Your task to perform on an android device: Clear the cart on bestbuy. Add macbook pro 13 inch to the cart on bestbuy, then select checkout. Image 0: 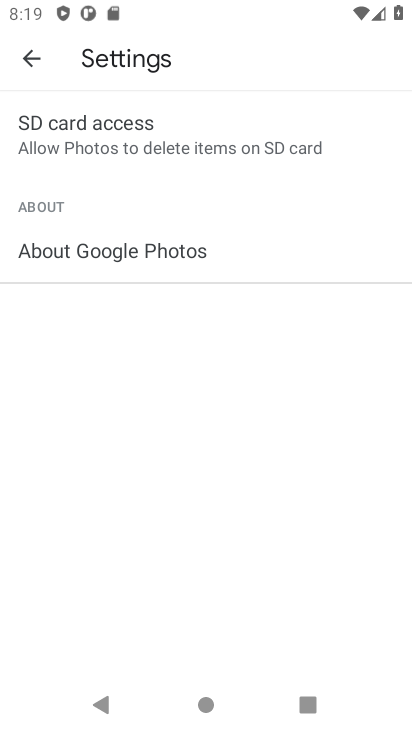
Step 0: press home button
Your task to perform on an android device: Clear the cart on bestbuy. Add macbook pro 13 inch to the cart on bestbuy, then select checkout. Image 1: 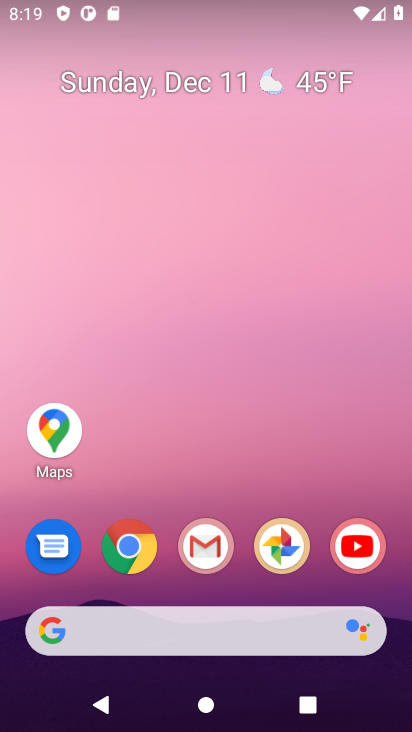
Step 1: click (115, 551)
Your task to perform on an android device: Clear the cart on bestbuy. Add macbook pro 13 inch to the cart on bestbuy, then select checkout. Image 2: 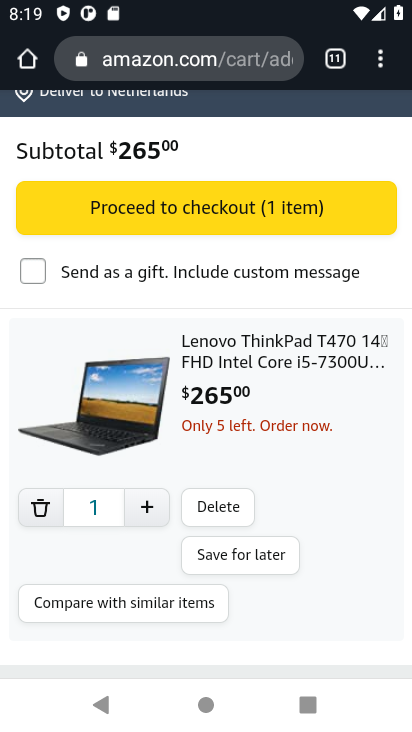
Step 2: click (187, 57)
Your task to perform on an android device: Clear the cart on bestbuy. Add macbook pro 13 inch to the cart on bestbuy, then select checkout. Image 3: 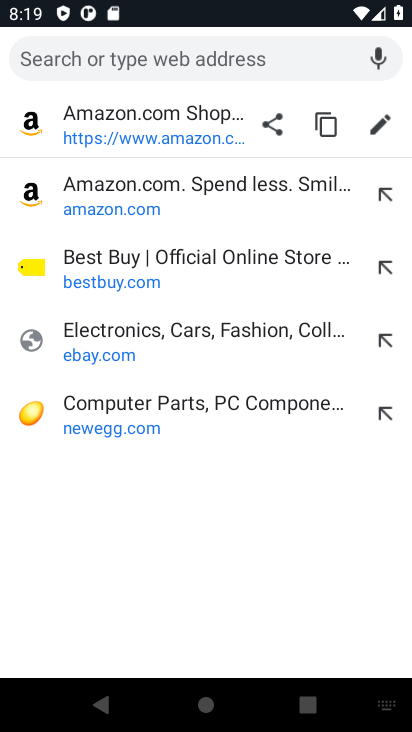
Step 3: click (100, 281)
Your task to perform on an android device: Clear the cart on bestbuy. Add macbook pro 13 inch to the cart on bestbuy, then select checkout. Image 4: 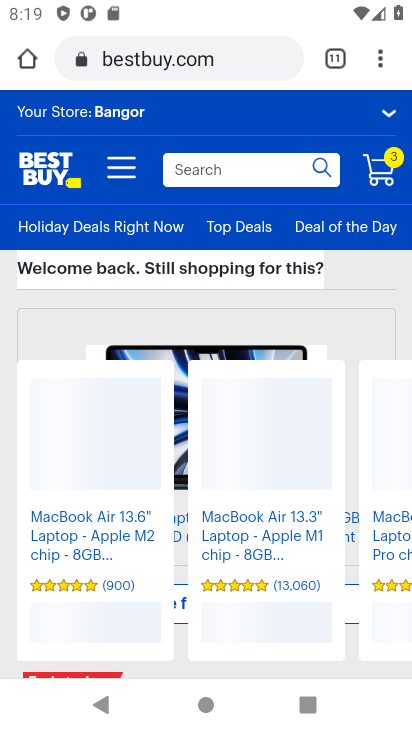
Step 4: click (386, 173)
Your task to perform on an android device: Clear the cart on bestbuy. Add macbook pro 13 inch to the cart on bestbuy, then select checkout. Image 5: 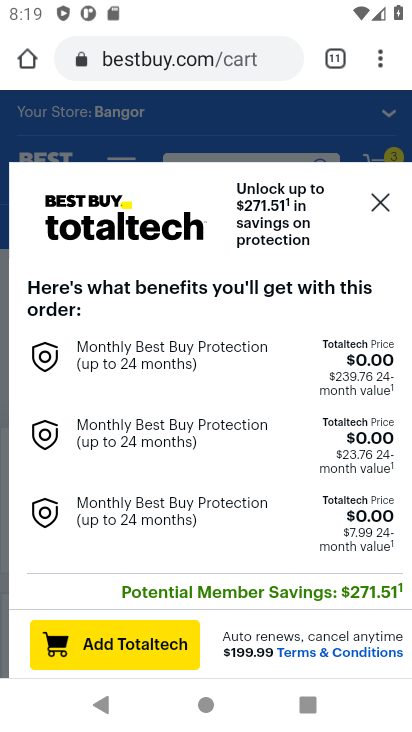
Step 5: drag from (212, 390) to (212, 233)
Your task to perform on an android device: Clear the cart on bestbuy. Add macbook pro 13 inch to the cart on bestbuy, then select checkout. Image 6: 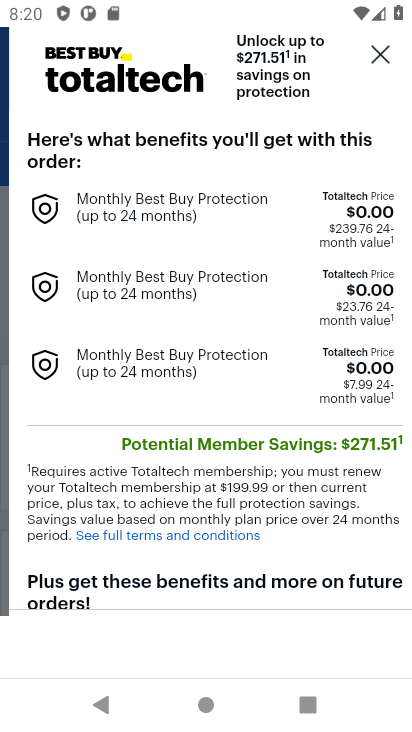
Step 6: click (378, 55)
Your task to perform on an android device: Clear the cart on bestbuy. Add macbook pro 13 inch to the cart on bestbuy, then select checkout. Image 7: 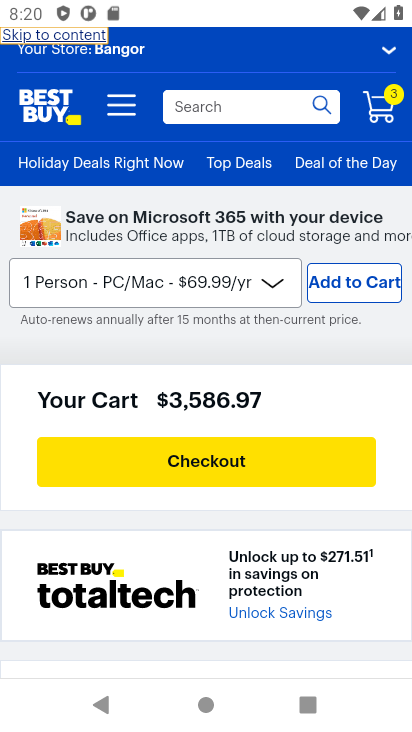
Step 7: drag from (156, 413) to (186, 191)
Your task to perform on an android device: Clear the cart on bestbuy. Add macbook pro 13 inch to the cart on bestbuy, then select checkout. Image 8: 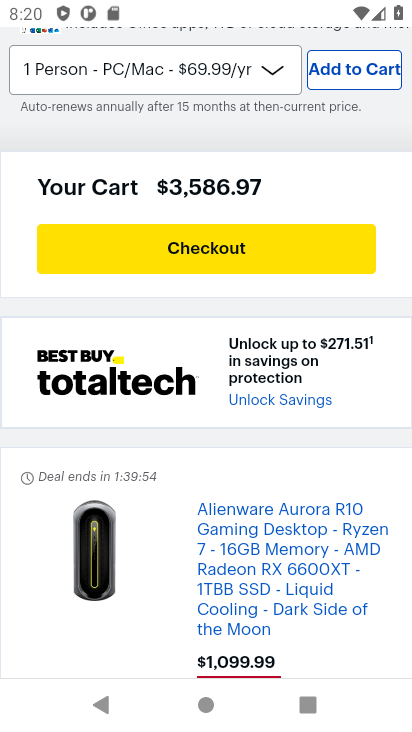
Step 8: drag from (182, 514) to (184, 201)
Your task to perform on an android device: Clear the cart on bestbuy. Add macbook pro 13 inch to the cart on bestbuy, then select checkout. Image 9: 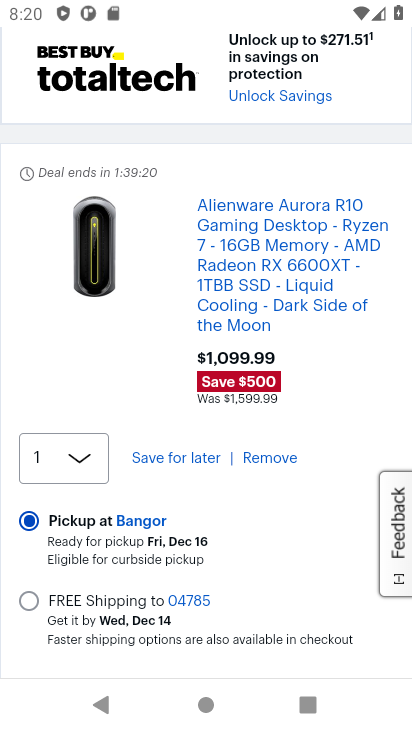
Step 9: click (261, 464)
Your task to perform on an android device: Clear the cart on bestbuy. Add macbook pro 13 inch to the cart on bestbuy, then select checkout. Image 10: 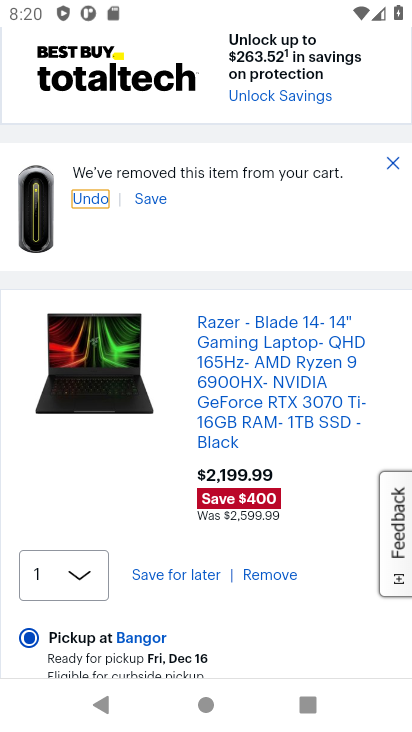
Step 10: click (269, 575)
Your task to perform on an android device: Clear the cart on bestbuy. Add macbook pro 13 inch to the cart on bestbuy, then select checkout. Image 11: 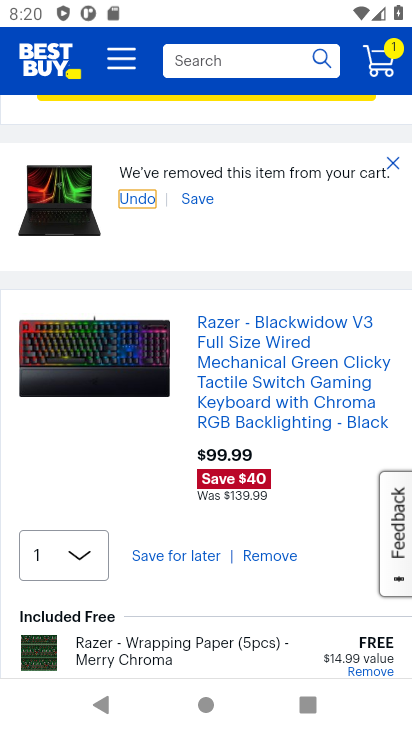
Step 11: click (271, 554)
Your task to perform on an android device: Clear the cart on bestbuy. Add macbook pro 13 inch to the cart on bestbuy, then select checkout. Image 12: 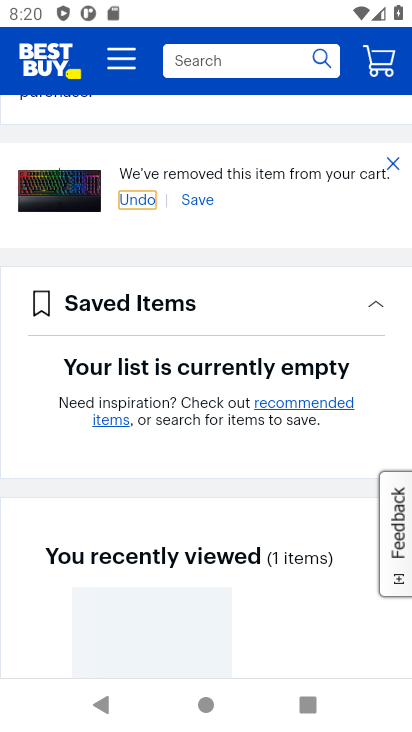
Step 12: drag from (215, 495) to (215, 624)
Your task to perform on an android device: Clear the cart on bestbuy. Add macbook pro 13 inch to the cart on bestbuy, then select checkout. Image 13: 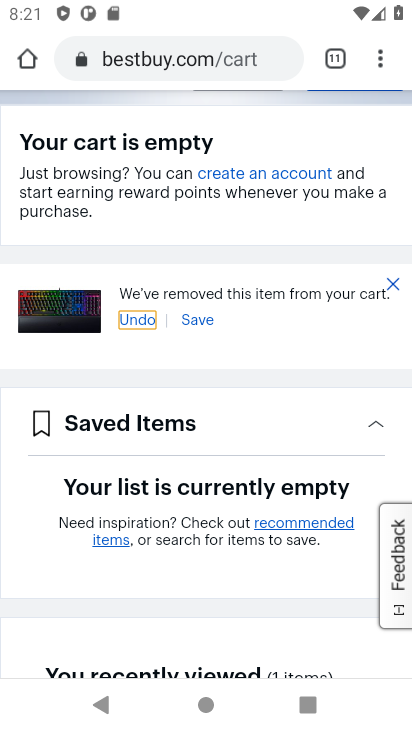
Step 13: drag from (261, 255) to (274, 430)
Your task to perform on an android device: Clear the cart on bestbuy. Add macbook pro 13 inch to the cart on bestbuy, then select checkout. Image 14: 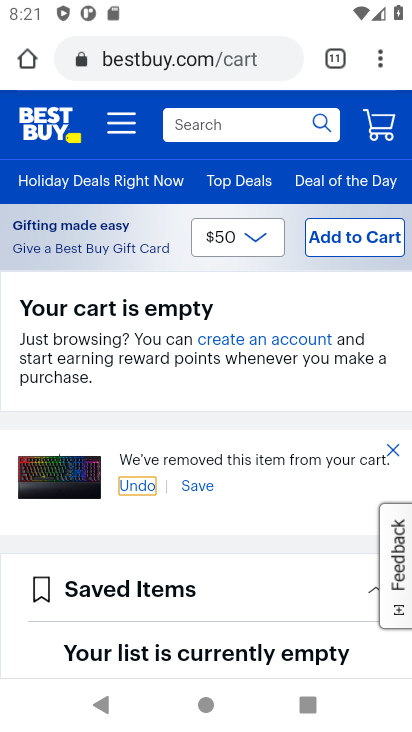
Step 14: click (197, 132)
Your task to perform on an android device: Clear the cart on bestbuy. Add macbook pro 13 inch to the cart on bestbuy, then select checkout. Image 15: 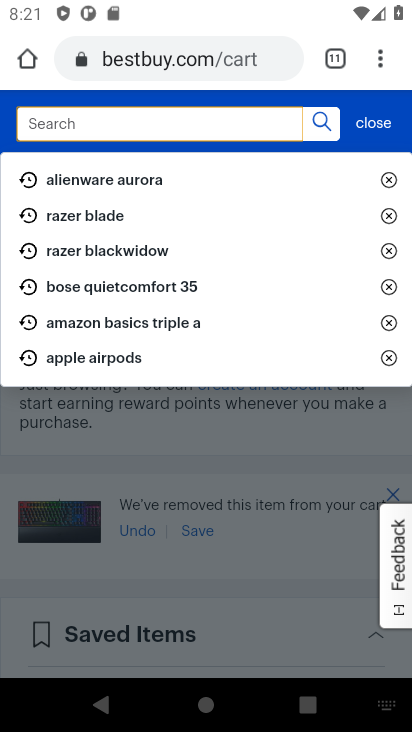
Step 15: type "macbook pro 13 inch"
Your task to perform on an android device: Clear the cart on bestbuy. Add macbook pro 13 inch to the cart on bestbuy, then select checkout. Image 16: 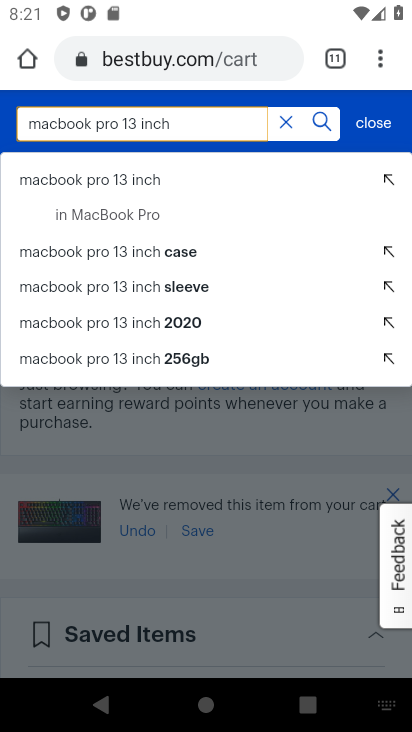
Step 16: click (110, 183)
Your task to perform on an android device: Clear the cart on bestbuy. Add macbook pro 13 inch to the cart on bestbuy, then select checkout. Image 17: 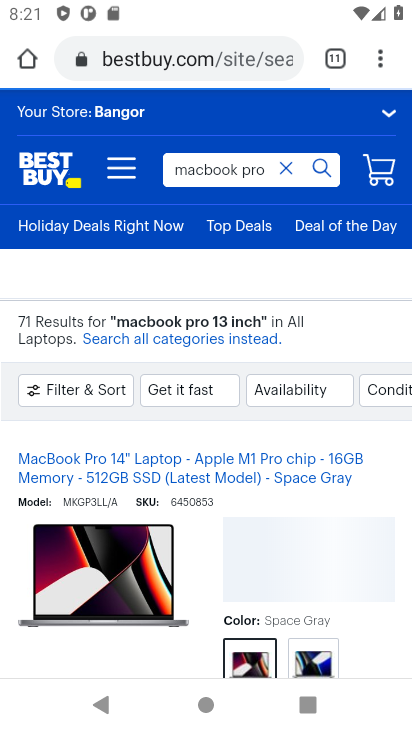
Step 17: drag from (200, 499) to (200, 331)
Your task to perform on an android device: Clear the cart on bestbuy. Add macbook pro 13 inch to the cart on bestbuy, then select checkout. Image 18: 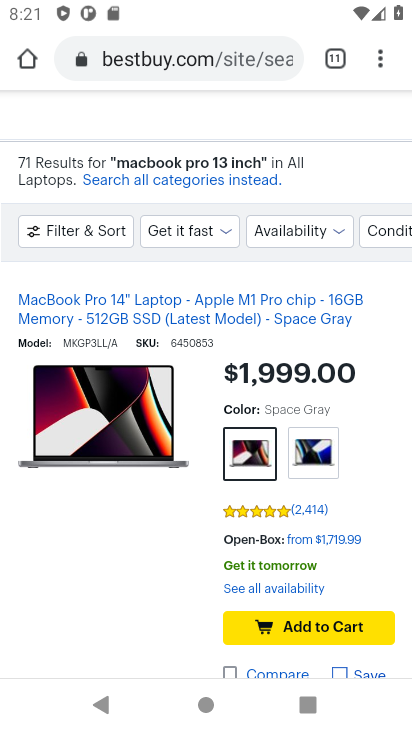
Step 18: drag from (163, 542) to (167, 179)
Your task to perform on an android device: Clear the cart on bestbuy. Add macbook pro 13 inch to the cart on bestbuy, then select checkout. Image 19: 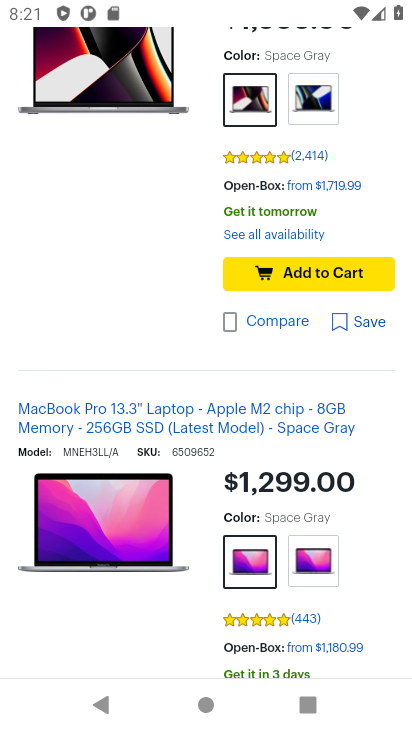
Step 19: drag from (168, 461) to (160, 279)
Your task to perform on an android device: Clear the cart on bestbuy. Add macbook pro 13 inch to the cart on bestbuy, then select checkout. Image 20: 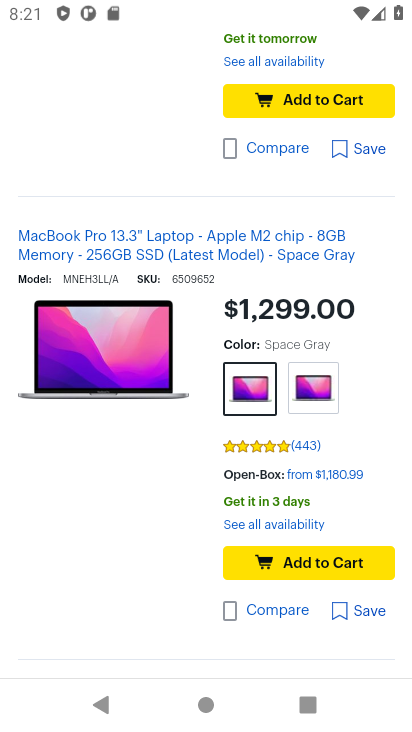
Step 20: click (294, 565)
Your task to perform on an android device: Clear the cart on bestbuy. Add macbook pro 13 inch to the cart on bestbuy, then select checkout. Image 21: 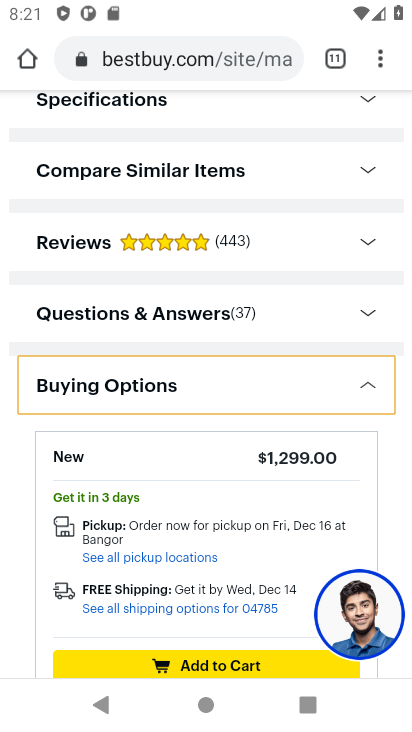
Step 21: drag from (198, 480) to (198, 98)
Your task to perform on an android device: Clear the cart on bestbuy. Add macbook pro 13 inch to the cart on bestbuy, then select checkout. Image 22: 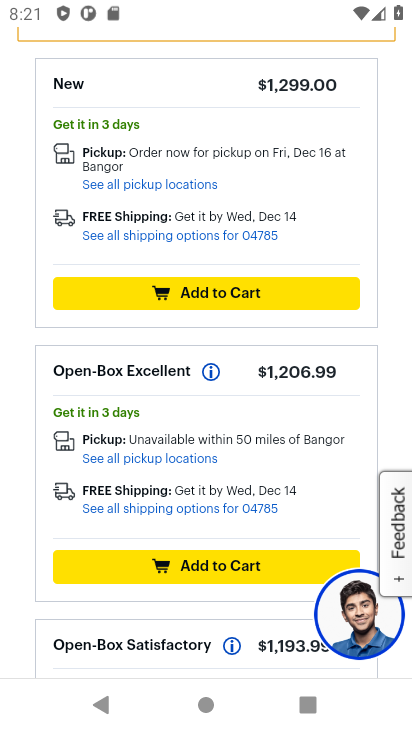
Step 22: drag from (200, 293) to (193, 545)
Your task to perform on an android device: Clear the cart on bestbuy. Add macbook pro 13 inch to the cart on bestbuy, then select checkout. Image 23: 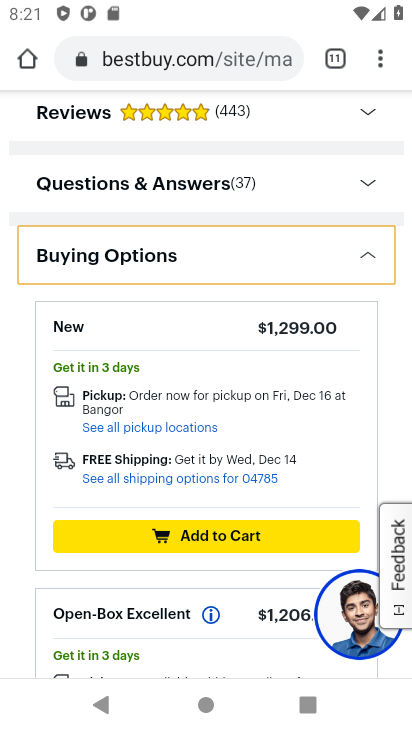
Step 23: drag from (190, 298) to (173, 591)
Your task to perform on an android device: Clear the cart on bestbuy. Add macbook pro 13 inch to the cart on bestbuy, then select checkout. Image 24: 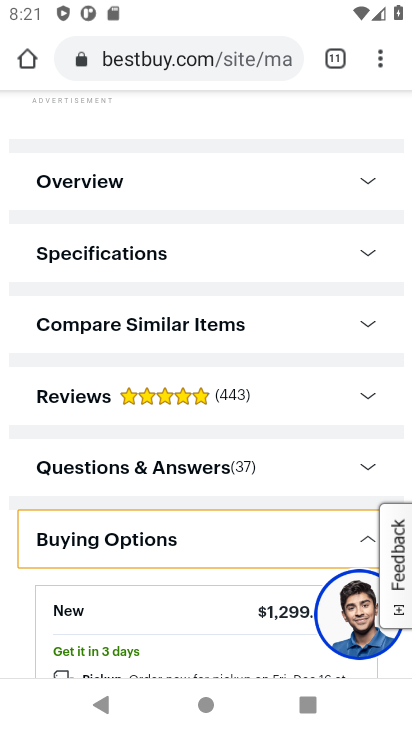
Step 24: drag from (184, 317) to (143, 659)
Your task to perform on an android device: Clear the cart on bestbuy. Add macbook pro 13 inch to the cart on bestbuy, then select checkout. Image 25: 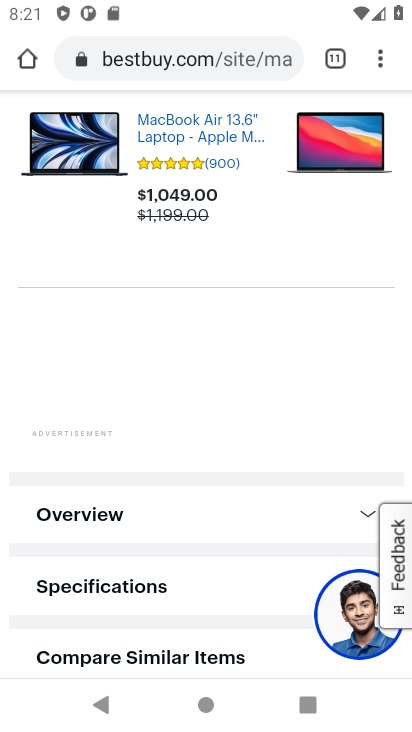
Step 25: drag from (158, 319) to (128, 670)
Your task to perform on an android device: Clear the cart on bestbuy. Add macbook pro 13 inch to the cart on bestbuy, then select checkout. Image 26: 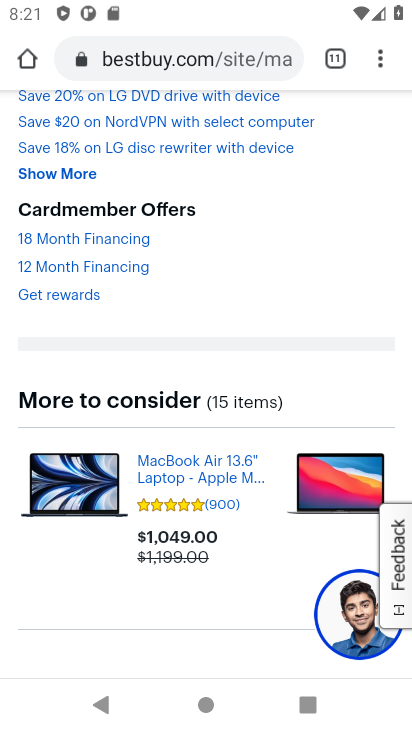
Step 26: drag from (174, 303) to (131, 673)
Your task to perform on an android device: Clear the cart on bestbuy. Add macbook pro 13 inch to the cart on bestbuy, then select checkout. Image 27: 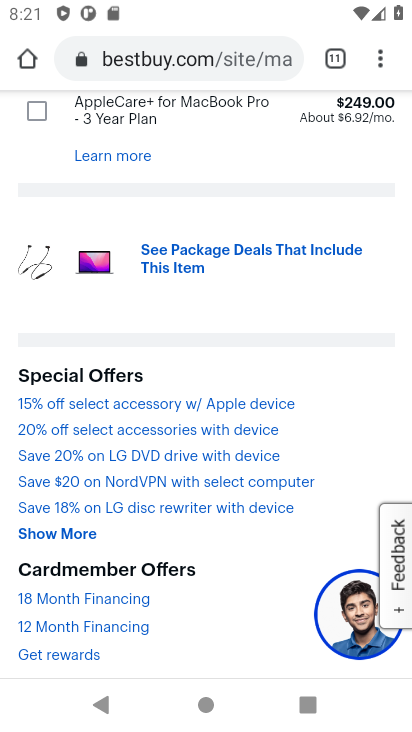
Step 27: drag from (130, 275) to (119, 629)
Your task to perform on an android device: Clear the cart on bestbuy. Add macbook pro 13 inch to the cart on bestbuy, then select checkout. Image 28: 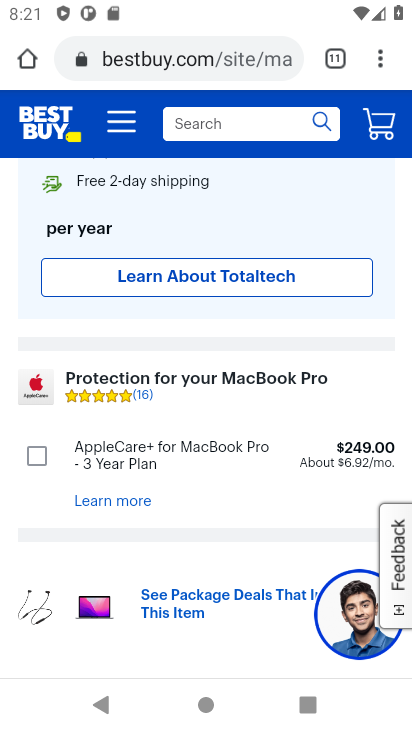
Step 28: drag from (174, 367) to (148, 658)
Your task to perform on an android device: Clear the cart on bestbuy. Add macbook pro 13 inch to the cart on bestbuy, then select checkout. Image 29: 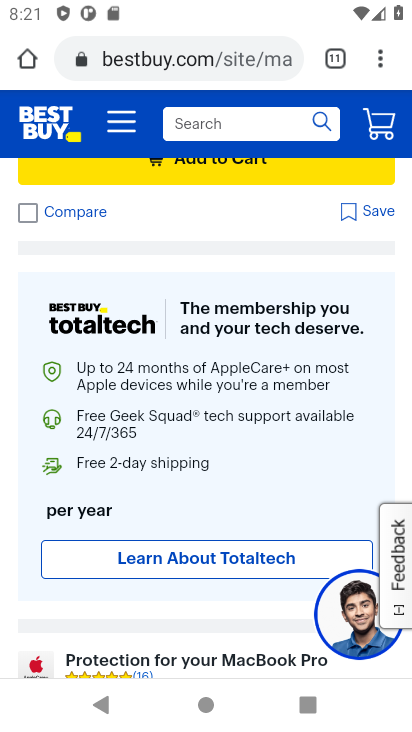
Step 29: drag from (178, 319) to (133, 688)
Your task to perform on an android device: Clear the cart on bestbuy. Add macbook pro 13 inch to the cart on bestbuy, then select checkout. Image 30: 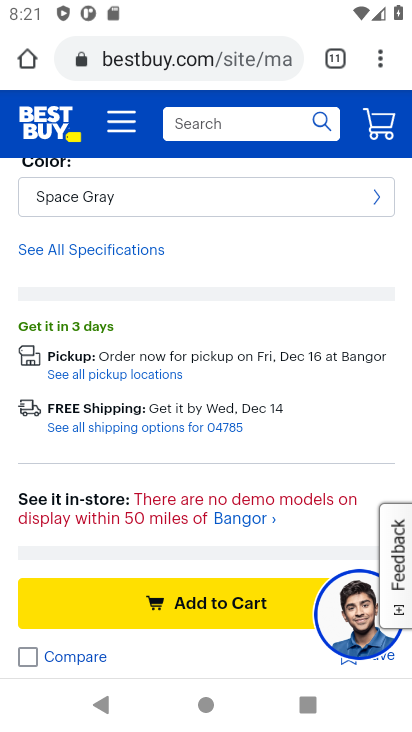
Step 30: click (163, 610)
Your task to perform on an android device: Clear the cart on bestbuy. Add macbook pro 13 inch to the cart on bestbuy, then select checkout. Image 31: 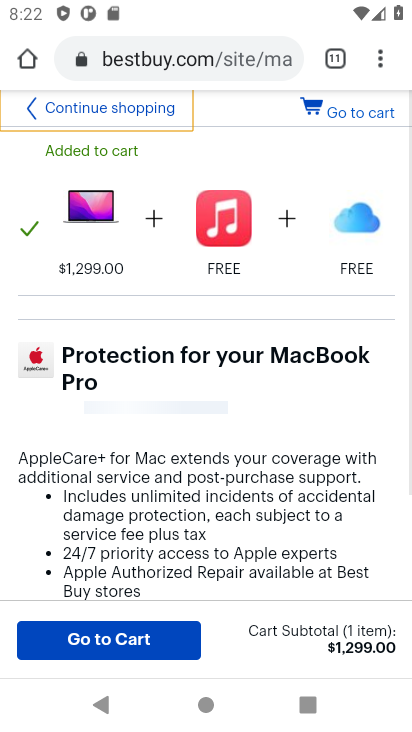
Step 31: click (349, 117)
Your task to perform on an android device: Clear the cart on bestbuy. Add macbook pro 13 inch to the cart on bestbuy, then select checkout. Image 32: 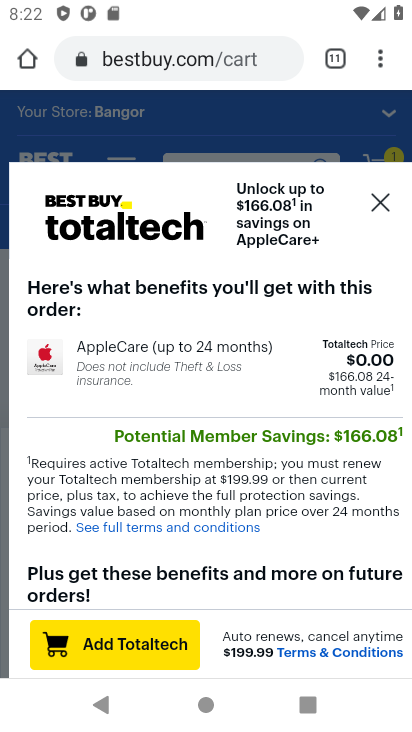
Step 32: click (378, 209)
Your task to perform on an android device: Clear the cart on bestbuy. Add macbook pro 13 inch to the cart on bestbuy, then select checkout. Image 33: 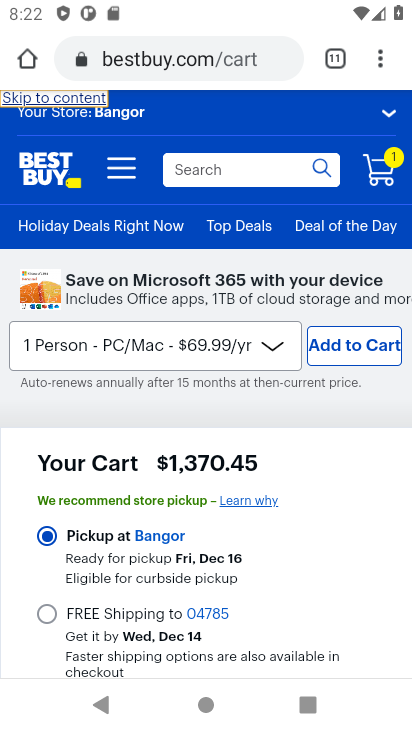
Step 33: drag from (199, 495) to (213, 144)
Your task to perform on an android device: Clear the cart on bestbuy. Add macbook pro 13 inch to the cart on bestbuy, then select checkout. Image 34: 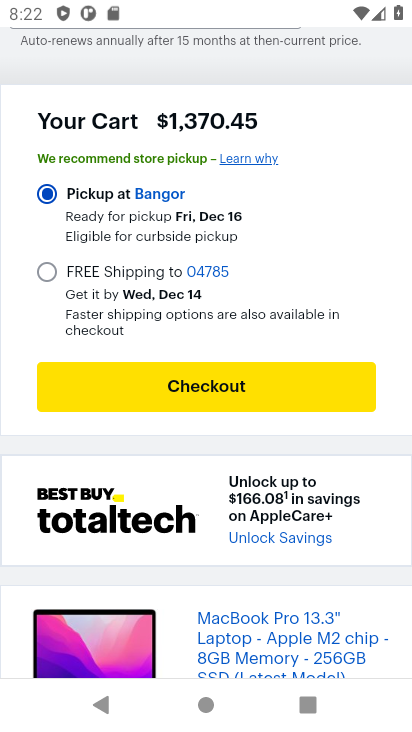
Step 34: click (188, 381)
Your task to perform on an android device: Clear the cart on bestbuy. Add macbook pro 13 inch to the cart on bestbuy, then select checkout. Image 35: 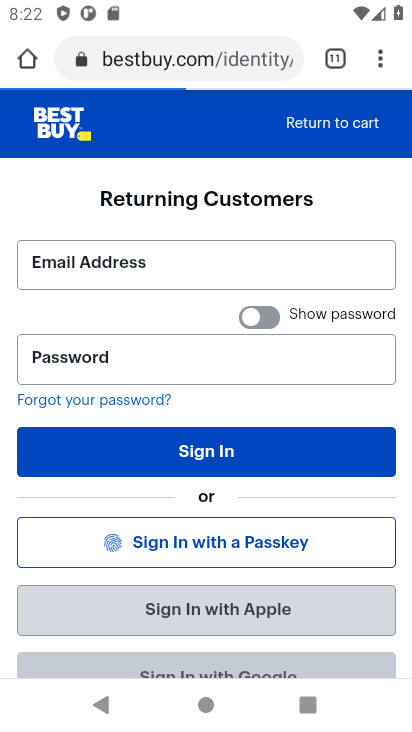
Step 35: task complete